Your task to perform on an android device: Go to display settings Image 0: 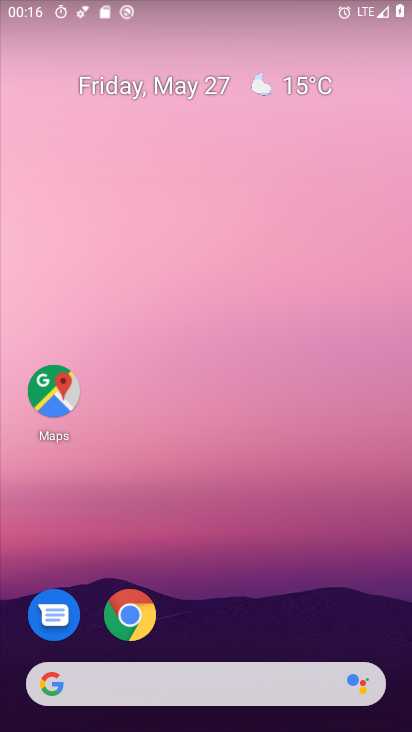
Step 0: drag from (202, 509) to (170, 47)
Your task to perform on an android device: Go to display settings Image 1: 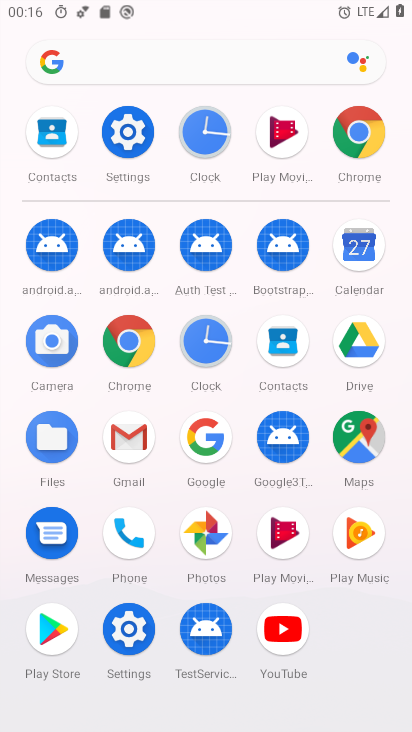
Step 1: click (117, 131)
Your task to perform on an android device: Go to display settings Image 2: 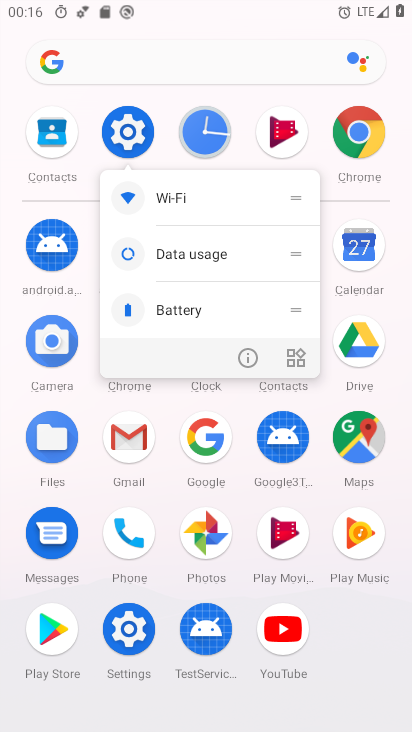
Step 2: click (130, 126)
Your task to perform on an android device: Go to display settings Image 3: 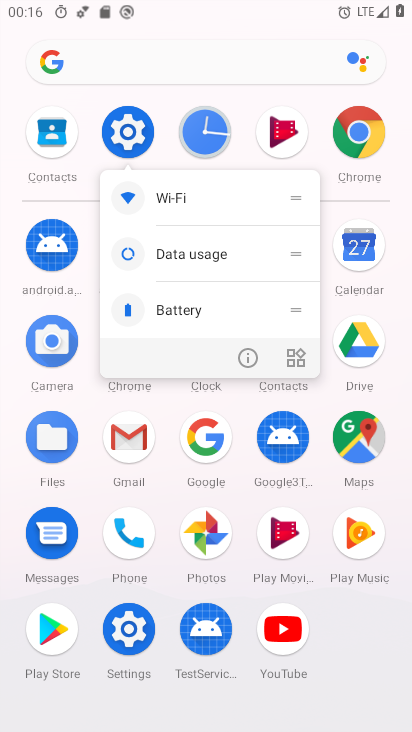
Step 3: click (131, 127)
Your task to perform on an android device: Go to display settings Image 4: 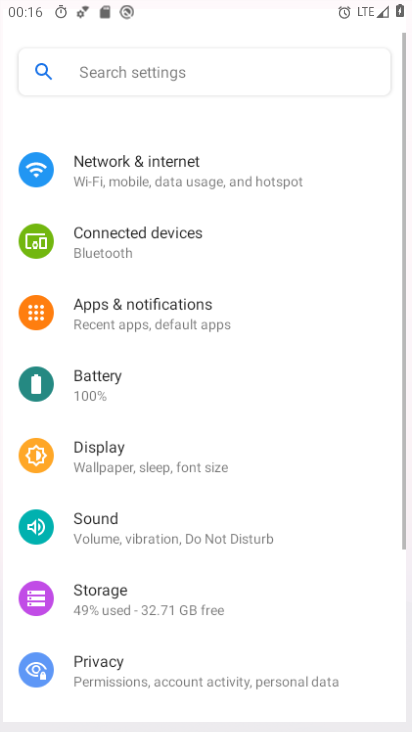
Step 4: click (133, 128)
Your task to perform on an android device: Go to display settings Image 5: 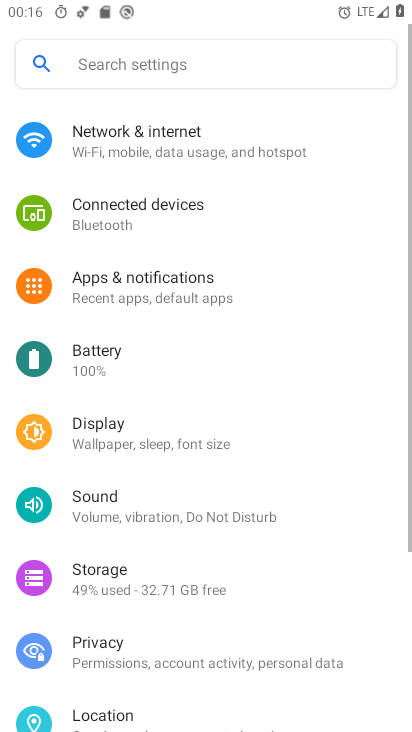
Step 5: click (138, 125)
Your task to perform on an android device: Go to display settings Image 6: 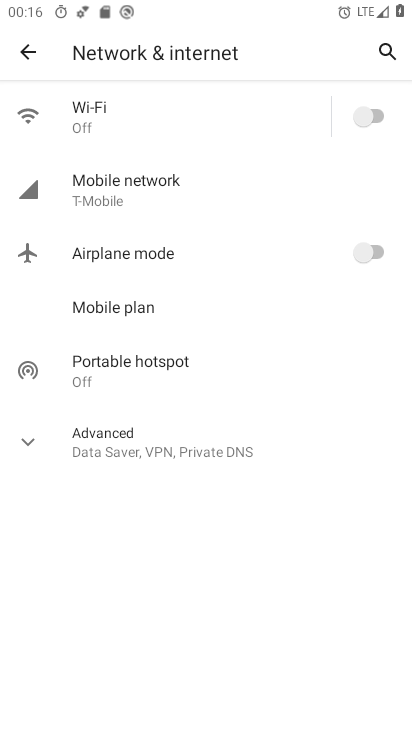
Step 6: click (28, 65)
Your task to perform on an android device: Go to display settings Image 7: 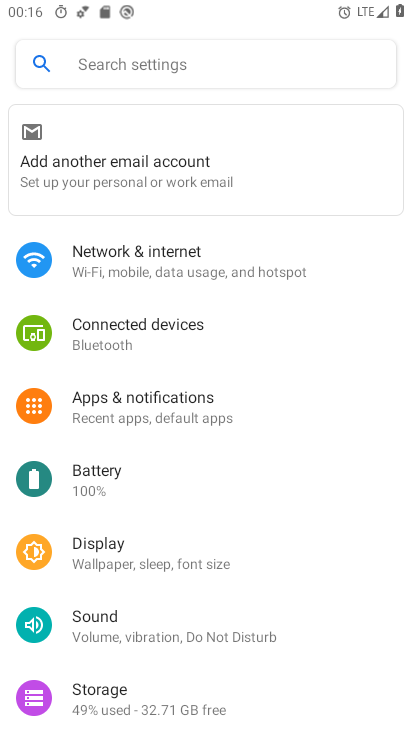
Step 7: click (98, 547)
Your task to perform on an android device: Go to display settings Image 8: 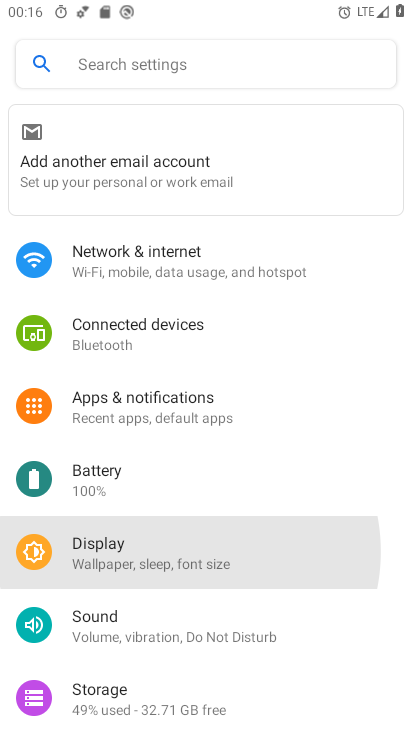
Step 8: click (100, 550)
Your task to perform on an android device: Go to display settings Image 9: 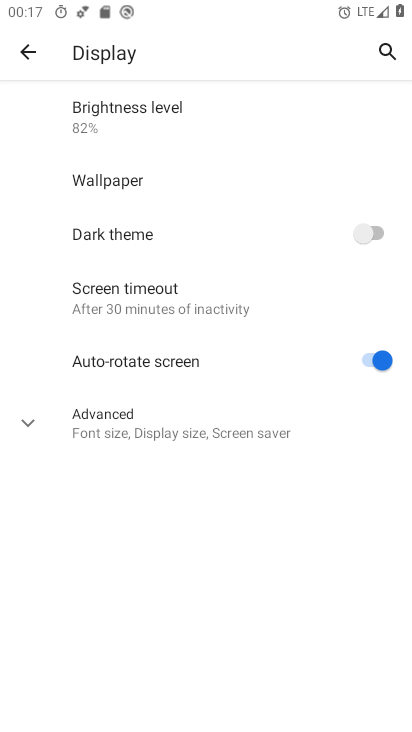
Step 9: task complete